Your task to perform on an android device: allow notifications from all sites in the chrome app Image 0: 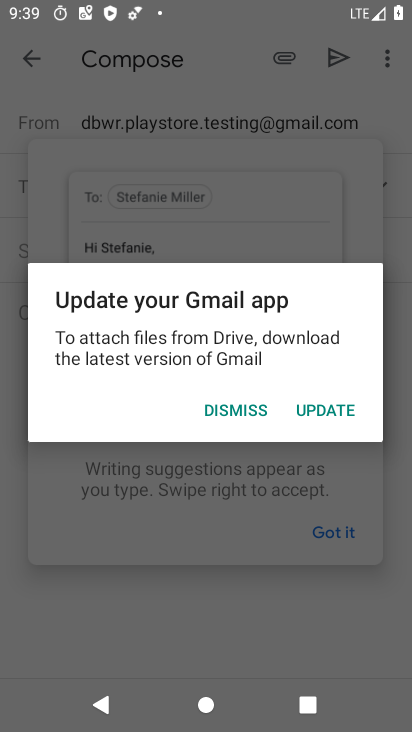
Step 0: click (336, 682)
Your task to perform on an android device: allow notifications from all sites in the chrome app Image 1: 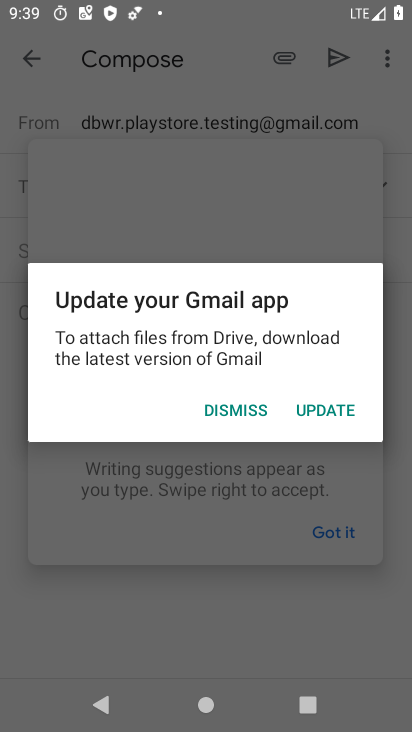
Step 1: press home button
Your task to perform on an android device: allow notifications from all sites in the chrome app Image 2: 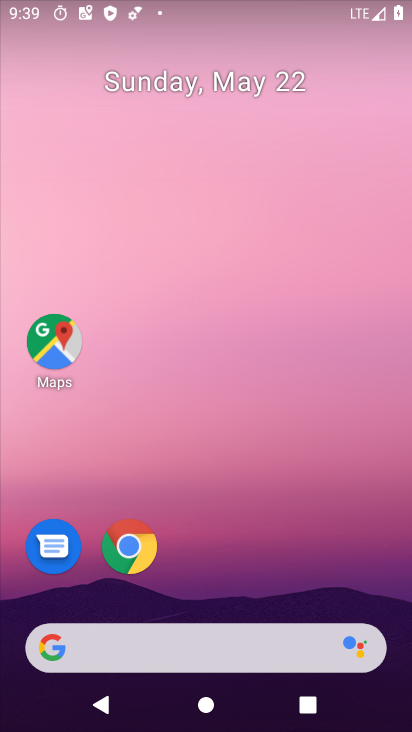
Step 2: drag from (178, 585) to (199, 18)
Your task to perform on an android device: allow notifications from all sites in the chrome app Image 3: 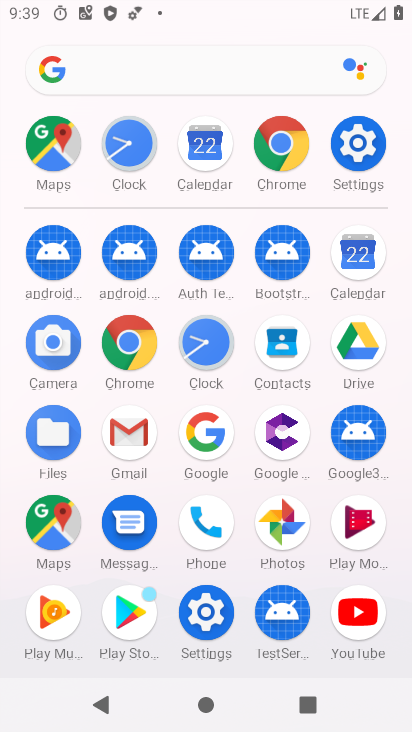
Step 3: click (121, 340)
Your task to perform on an android device: allow notifications from all sites in the chrome app Image 4: 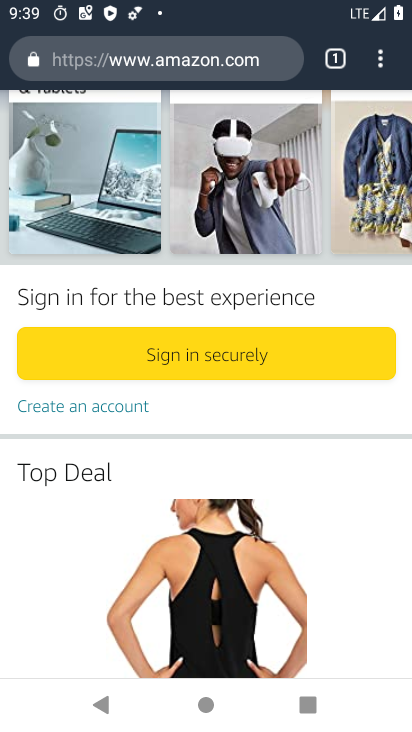
Step 4: click (383, 52)
Your task to perform on an android device: allow notifications from all sites in the chrome app Image 5: 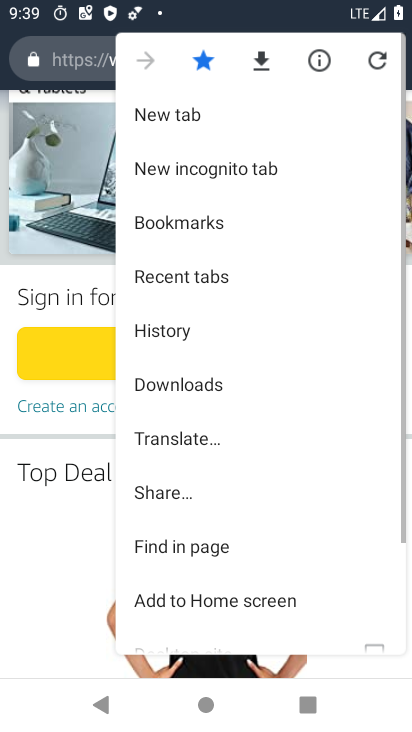
Step 5: drag from (274, 435) to (376, 10)
Your task to perform on an android device: allow notifications from all sites in the chrome app Image 6: 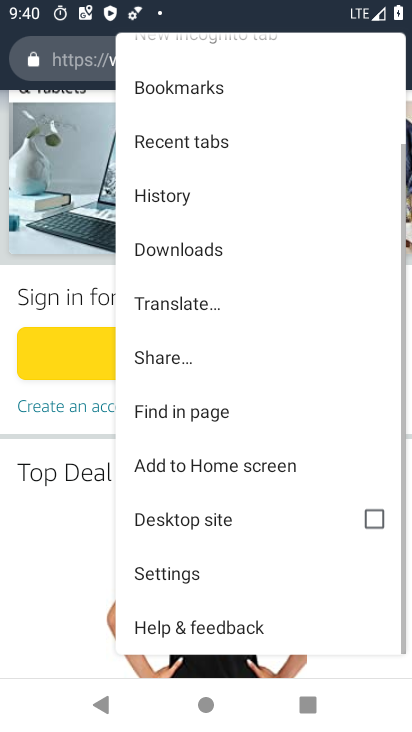
Step 6: click (181, 568)
Your task to perform on an android device: allow notifications from all sites in the chrome app Image 7: 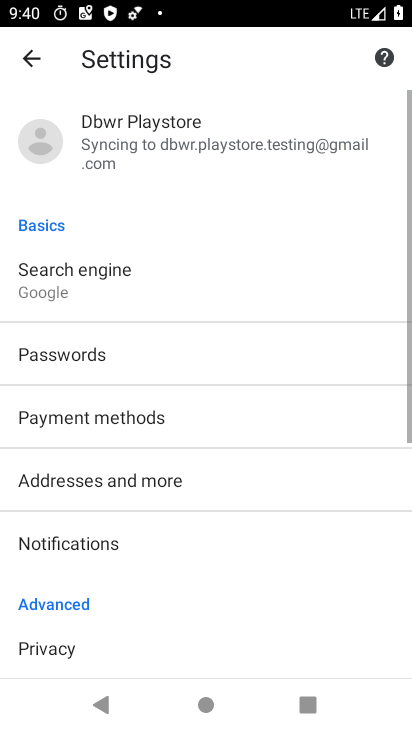
Step 7: drag from (205, 547) to (302, 132)
Your task to perform on an android device: allow notifications from all sites in the chrome app Image 8: 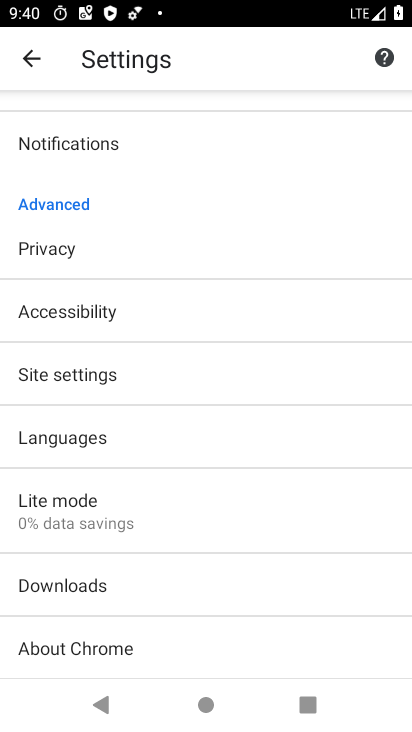
Step 8: click (72, 378)
Your task to perform on an android device: allow notifications from all sites in the chrome app Image 9: 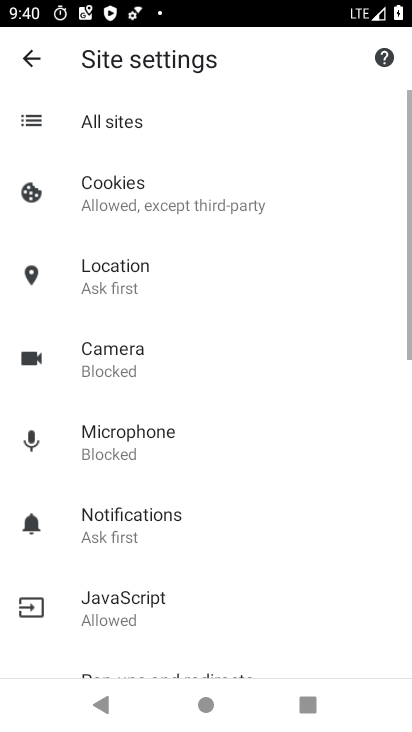
Step 9: drag from (202, 441) to (245, 48)
Your task to perform on an android device: allow notifications from all sites in the chrome app Image 10: 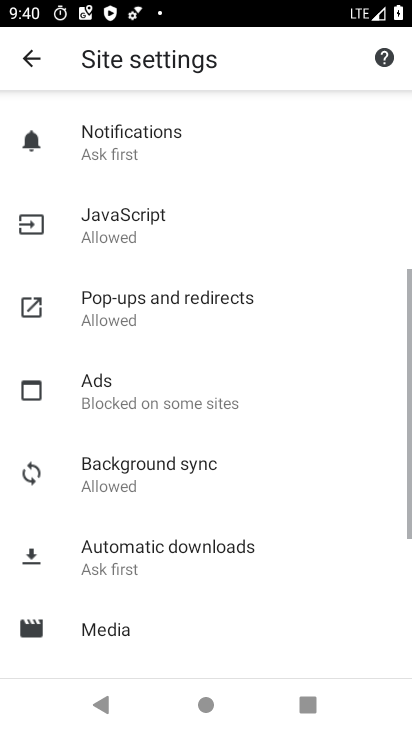
Step 10: drag from (203, 322) to (211, 244)
Your task to perform on an android device: allow notifications from all sites in the chrome app Image 11: 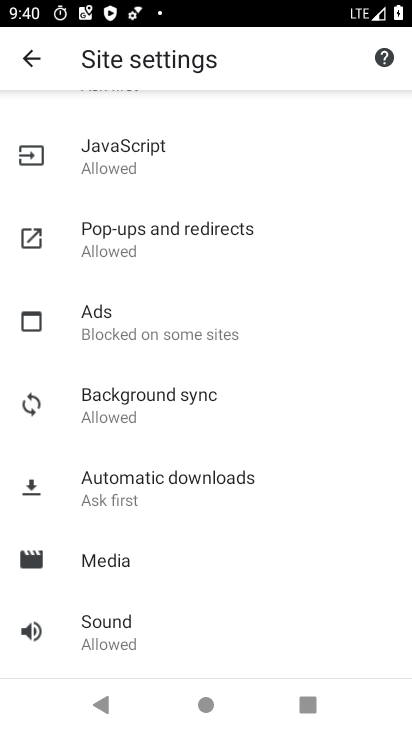
Step 11: click (26, 58)
Your task to perform on an android device: allow notifications from all sites in the chrome app Image 12: 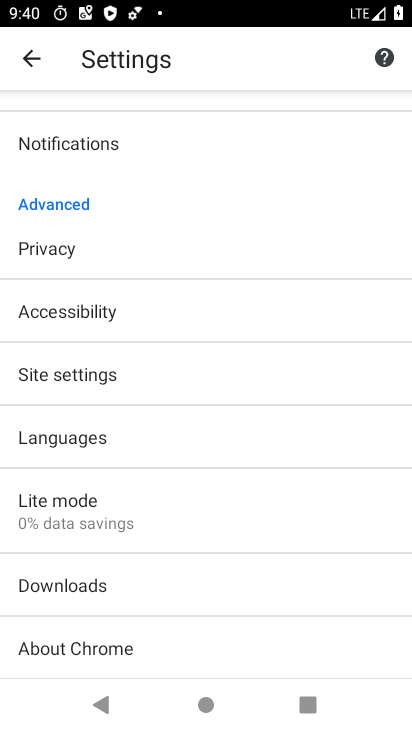
Step 12: drag from (152, 180) to (378, 207)
Your task to perform on an android device: allow notifications from all sites in the chrome app Image 13: 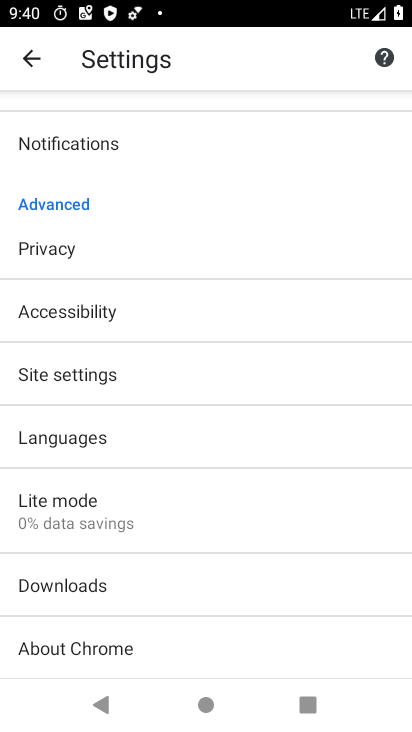
Step 13: click (104, 378)
Your task to perform on an android device: allow notifications from all sites in the chrome app Image 14: 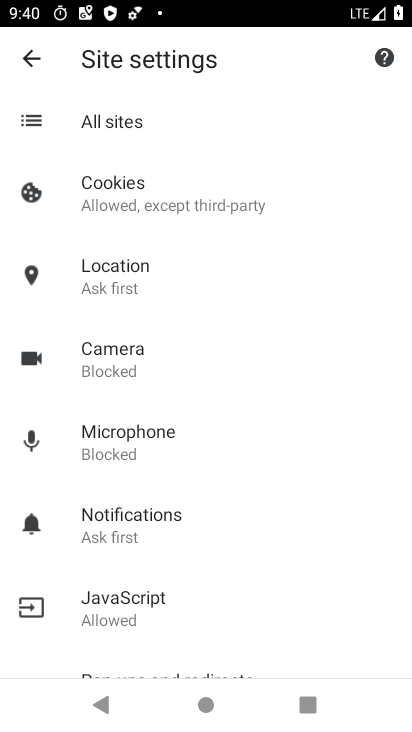
Step 14: drag from (170, 413) to (276, 36)
Your task to perform on an android device: allow notifications from all sites in the chrome app Image 15: 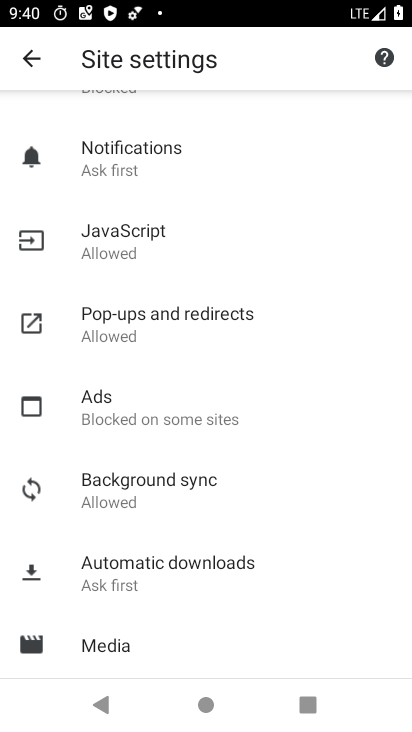
Step 15: click (131, 173)
Your task to perform on an android device: allow notifications from all sites in the chrome app Image 16: 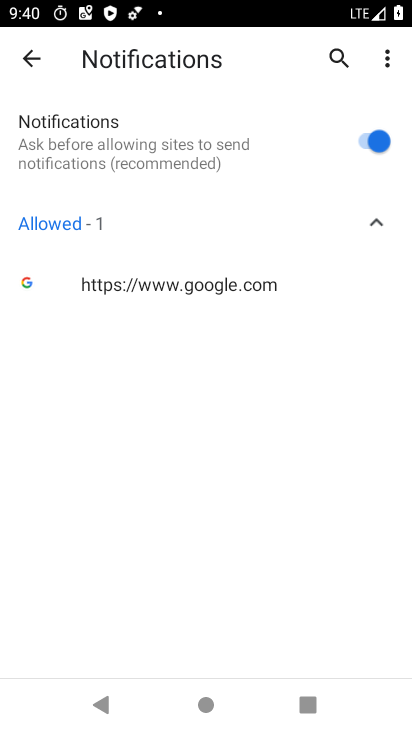
Step 16: task complete